Your task to perform on an android device: open app "Airtel Thanks" (install if not already installed), go to login, and select forgot password Image 0: 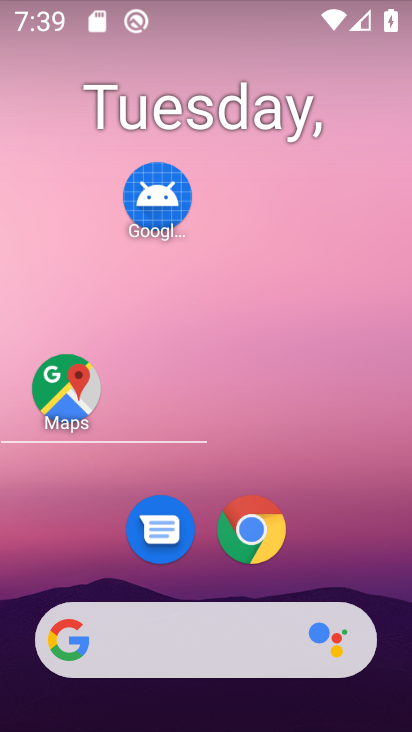
Step 0: press home button
Your task to perform on an android device: open app "Airtel Thanks" (install if not already installed), go to login, and select forgot password Image 1: 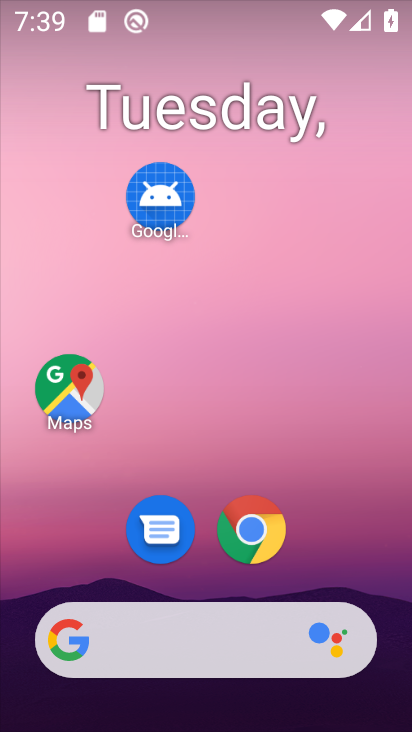
Step 1: drag from (317, 563) to (325, 92)
Your task to perform on an android device: open app "Airtel Thanks" (install if not already installed), go to login, and select forgot password Image 2: 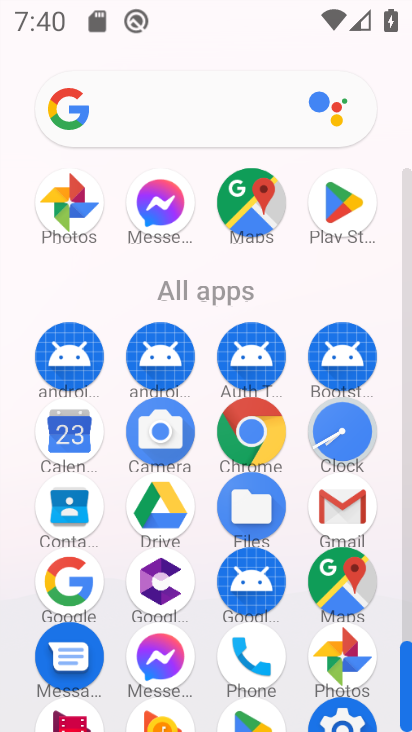
Step 2: click (344, 197)
Your task to perform on an android device: open app "Airtel Thanks" (install if not already installed), go to login, and select forgot password Image 3: 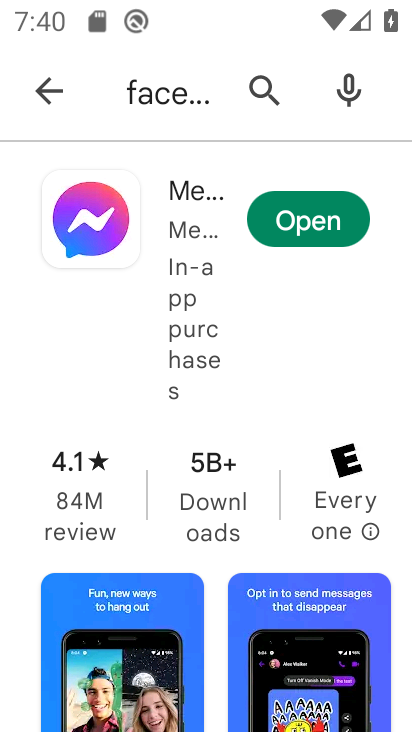
Step 3: click (259, 94)
Your task to perform on an android device: open app "Airtel Thanks" (install if not already installed), go to login, and select forgot password Image 4: 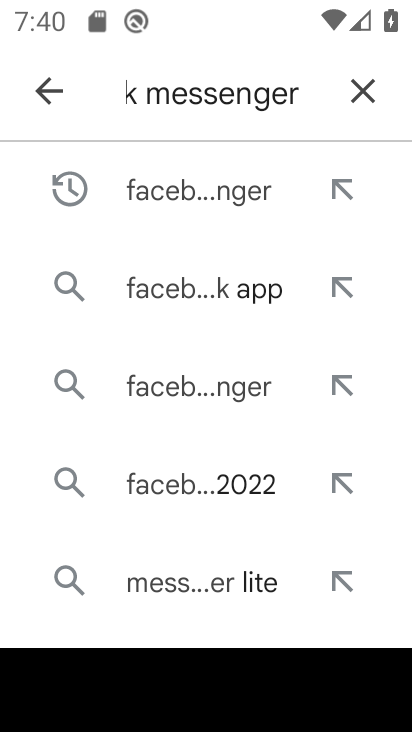
Step 4: click (366, 93)
Your task to perform on an android device: open app "Airtel Thanks" (install if not already installed), go to login, and select forgot password Image 5: 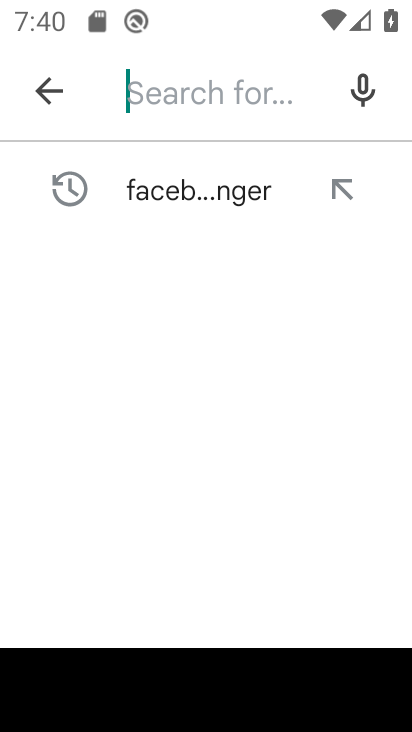
Step 5: type "Airtel Thanks"
Your task to perform on an android device: open app "Airtel Thanks" (install if not already installed), go to login, and select forgot password Image 6: 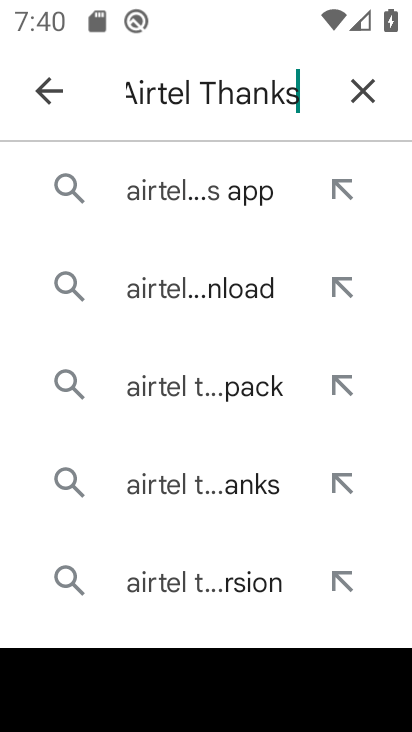
Step 6: click (246, 184)
Your task to perform on an android device: open app "Airtel Thanks" (install if not already installed), go to login, and select forgot password Image 7: 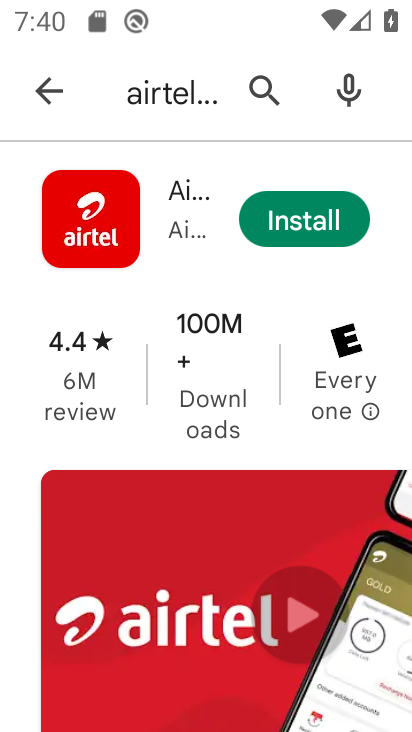
Step 7: click (302, 214)
Your task to perform on an android device: open app "Airtel Thanks" (install if not already installed), go to login, and select forgot password Image 8: 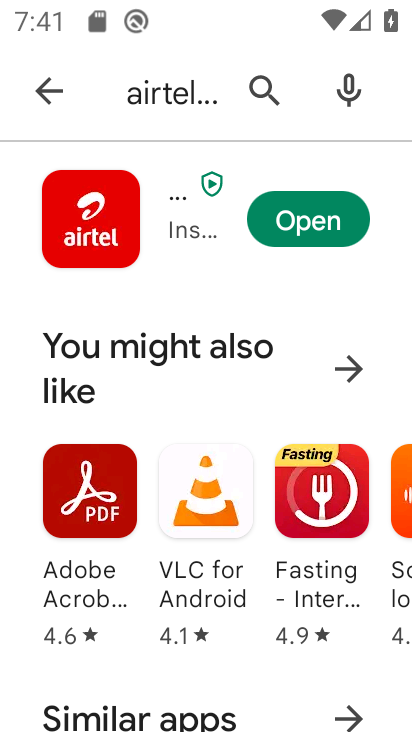
Step 8: click (304, 221)
Your task to perform on an android device: open app "Airtel Thanks" (install if not already installed), go to login, and select forgot password Image 9: 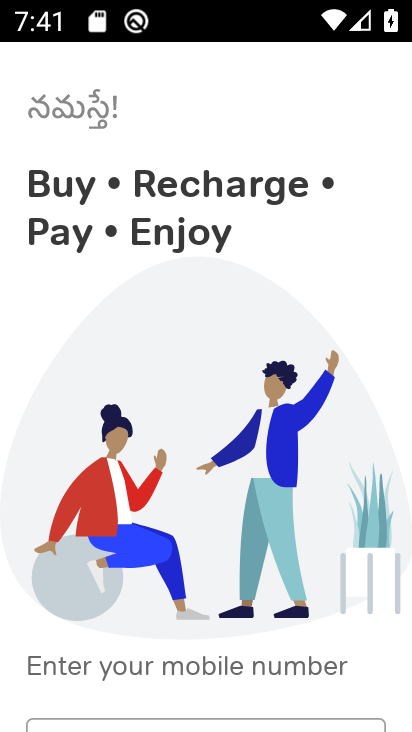
Step 9: drag from (237, 619) to (268, 262)
Your task to perform on an android device: open app "Airtel Thanks" (install if not already installed), go to login, and select forgot password Image 10: 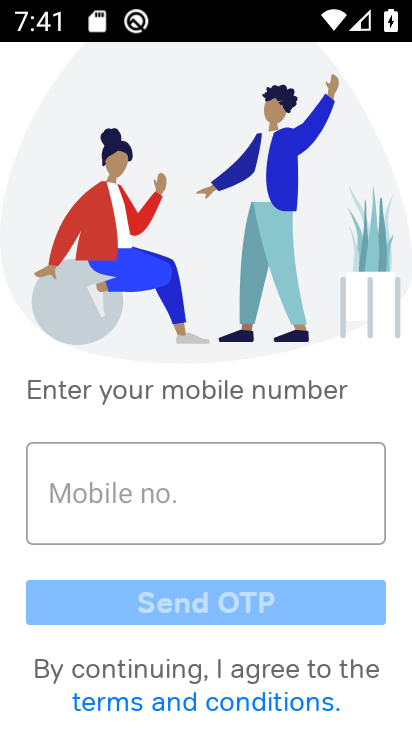
Step 10: drag from (197, 607) to (240, 337)
Your task to perform on an android device: open app "Airtel Thanks" (install if not already installed), go to login, and select forgot password Image 11: 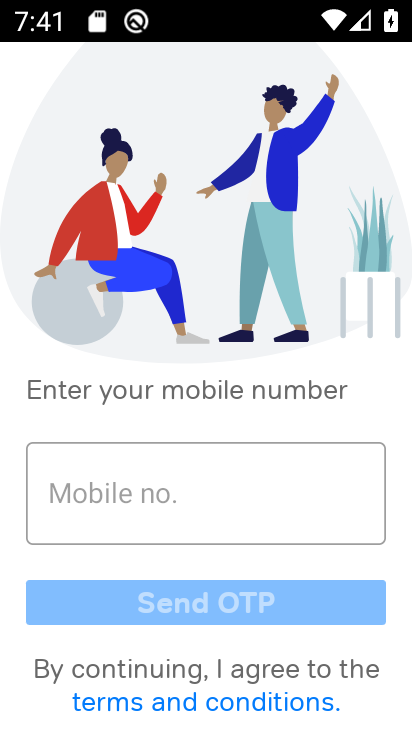
Step 11: click (156, 494)
Your task to perform on an android device: open app "Airtel Thanks" (install if not already installed), go to login, and select forgot password Image 12: 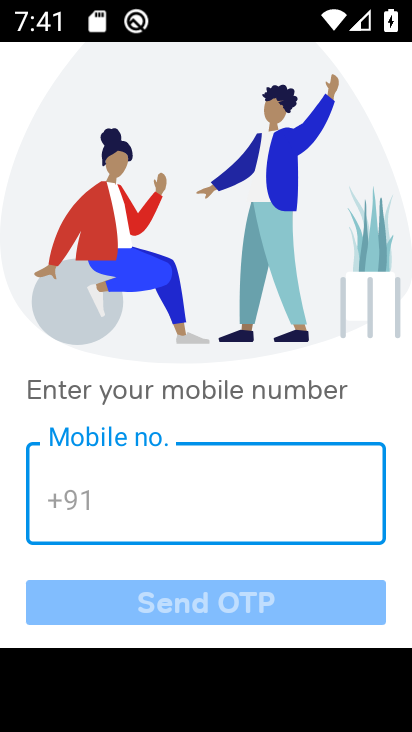
Step 12: type "9876543210"
Your task to perform on an android device: open app "Airtel Thanks" (install if not already installed), go to login, and select forgot password Image 13: 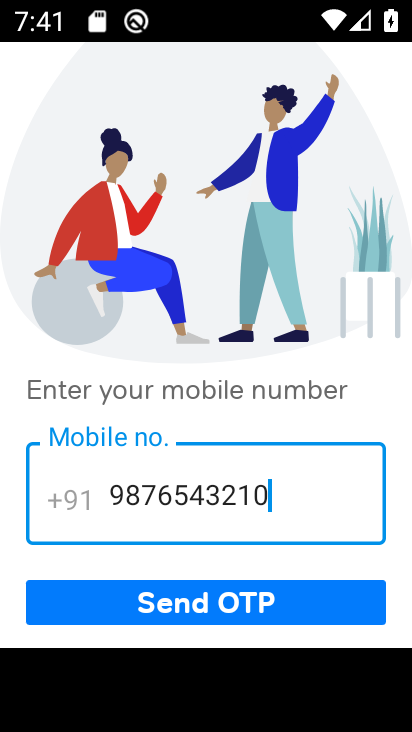
Step 13: click (224, 618)
Your task to perform on an android device: open app "Airtel Thanks" (install if not already installed), go to login, and select forgot password Image 14: 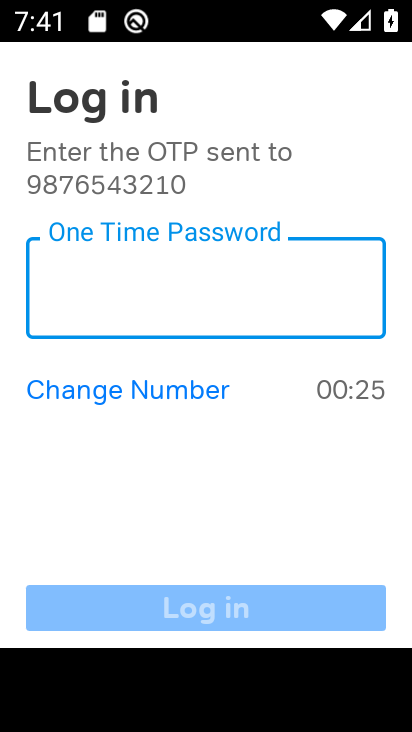
Step 14: task complete